Your task to perform on an android device: turn off javascript in the chrome app Image 0: 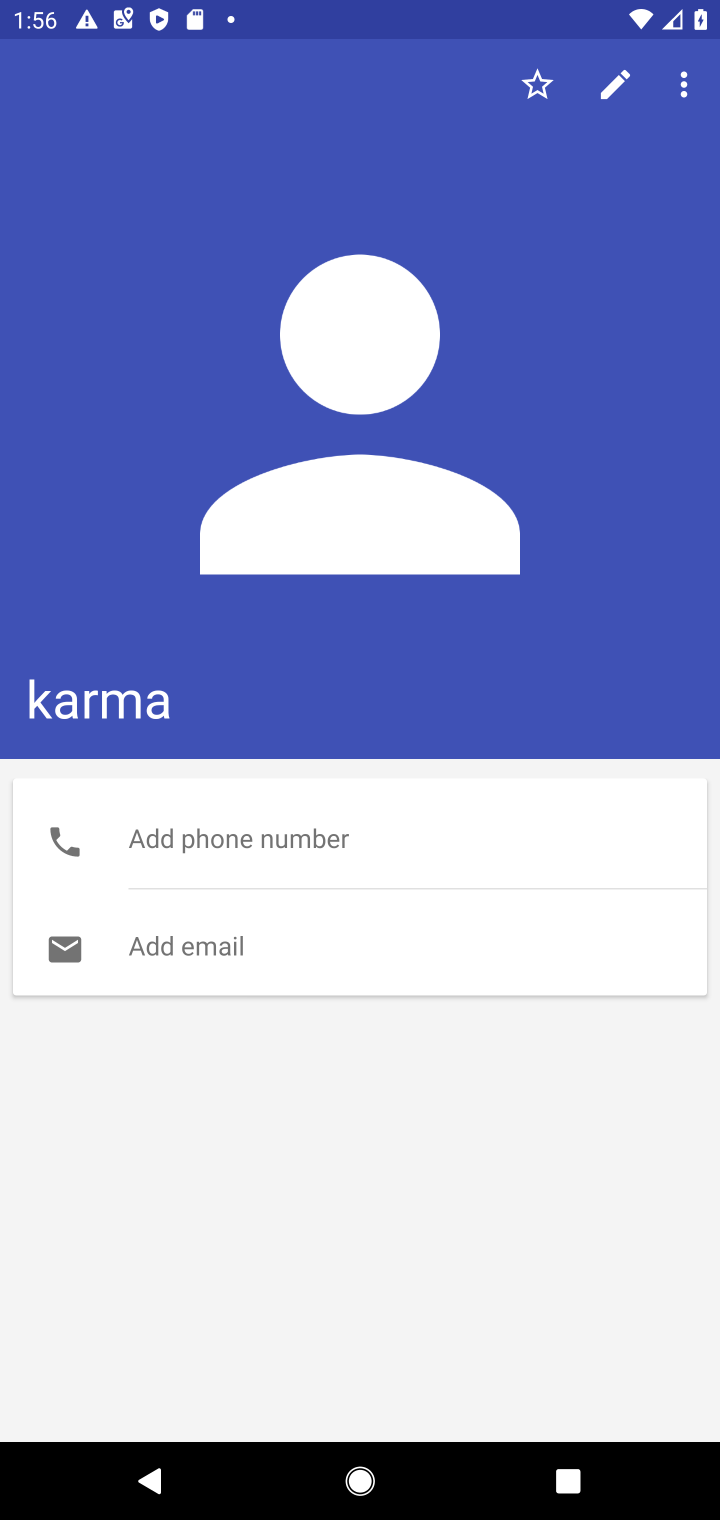
Step 0: press home button
Your task to perform on an android device: turn off javascript in the chrome app Image 1: 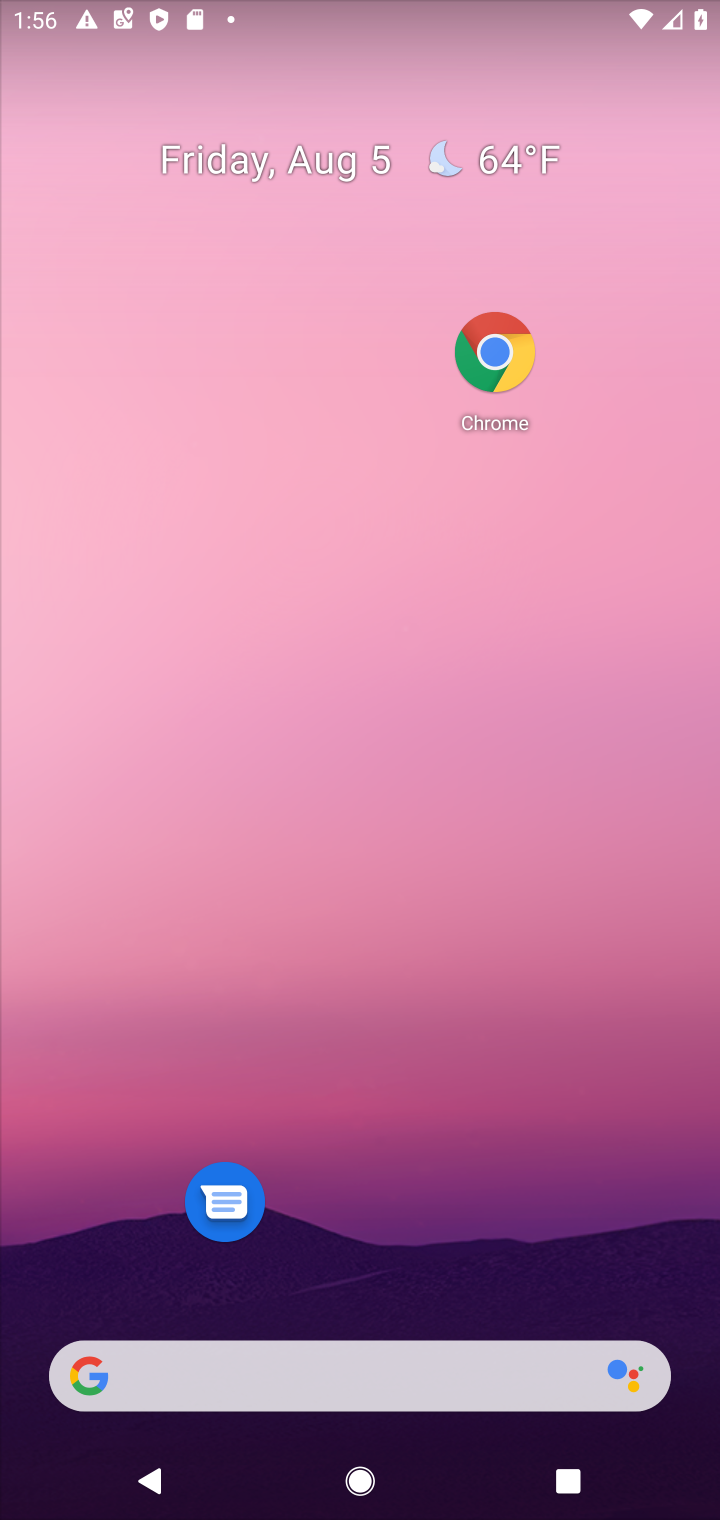
Step 1: drag from (521, 1089) to (419, 270)
Your task to perform on an android device: turn off javascript in the chrome app Image 2: 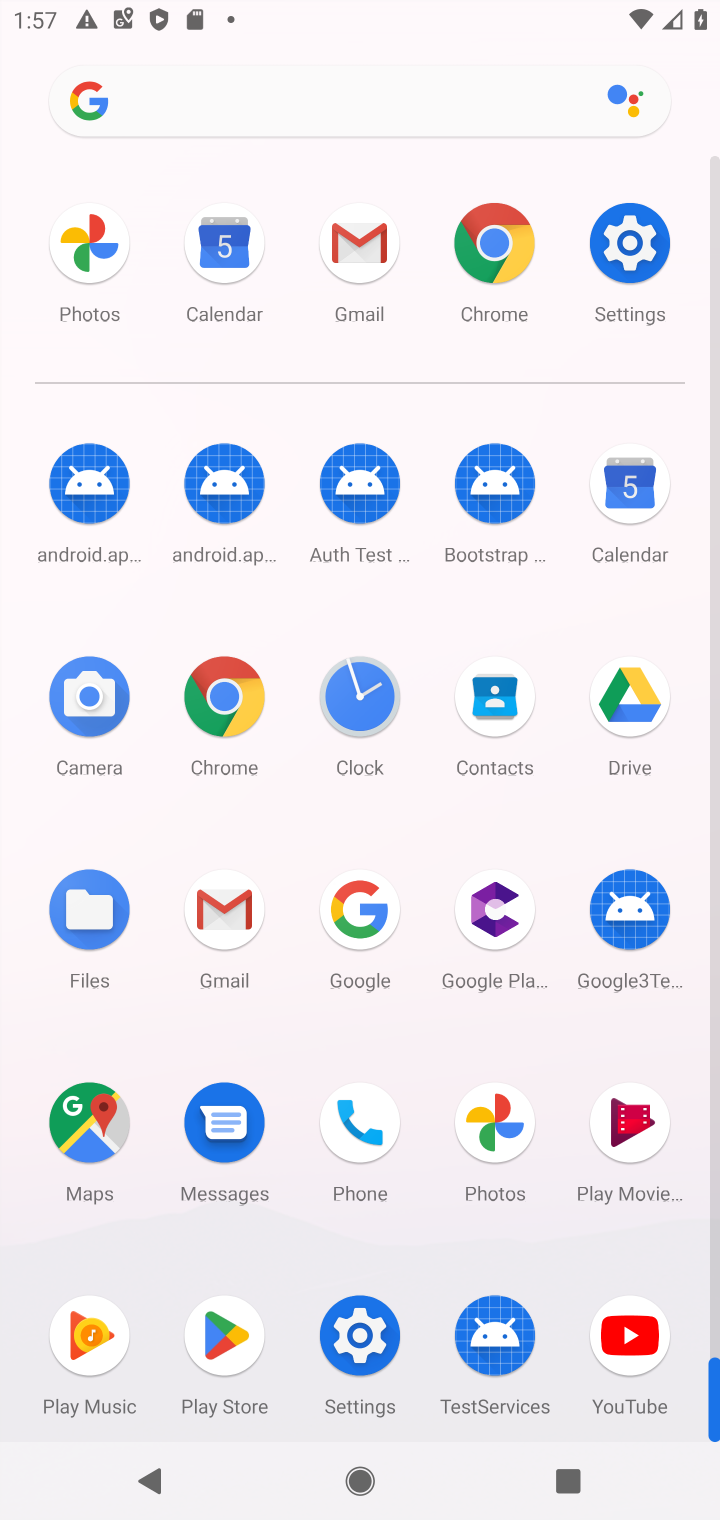
Step 2: click (227, 684)
Your task to perform on an android device: turn off javascript in the chrome app Image 3: 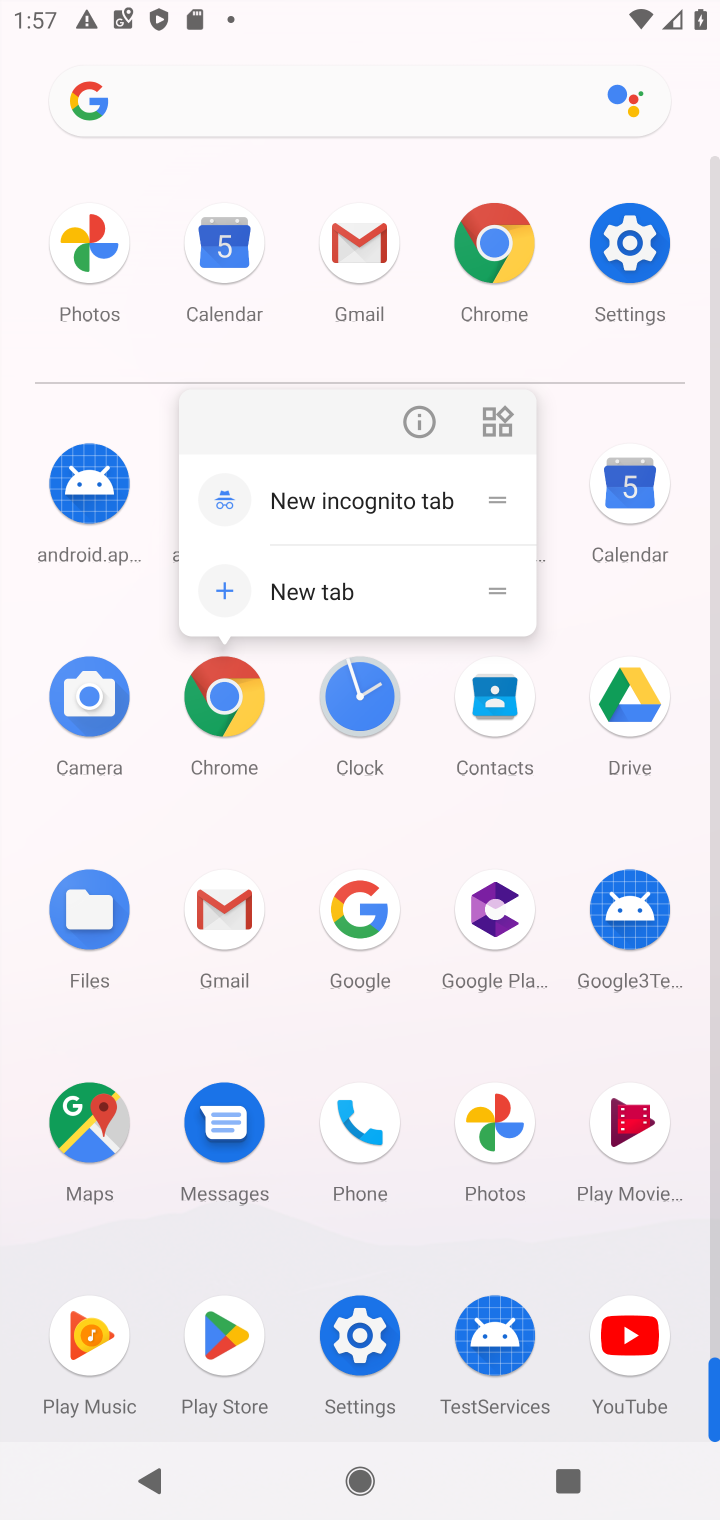
Step 3: click (216, 697)
Your task to perform on an android device: turn off javascript in the chrome app Image 4: 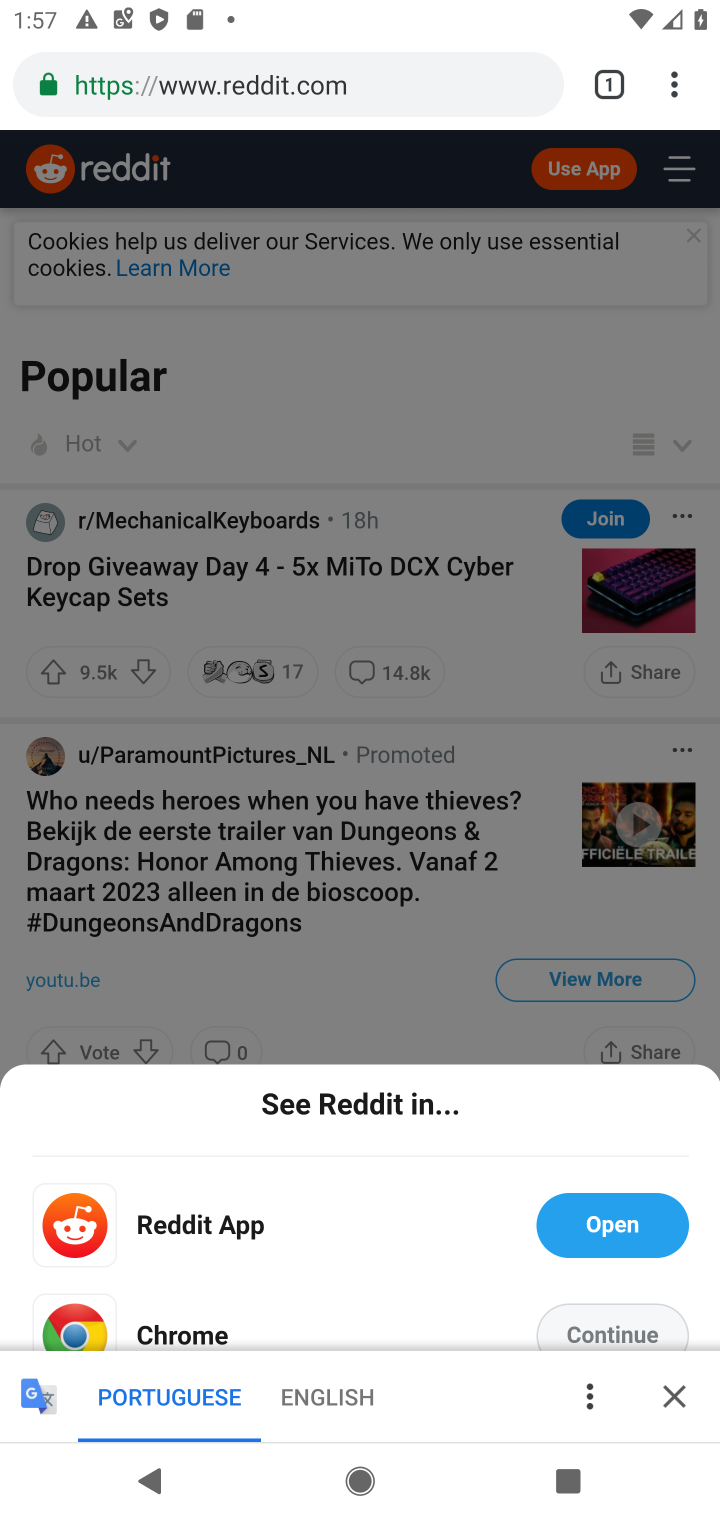
Step 4: drag from (665, 89) to (389, 1017)
Your task to perform on an android device: turn off javascript in the chrome app Image 5: 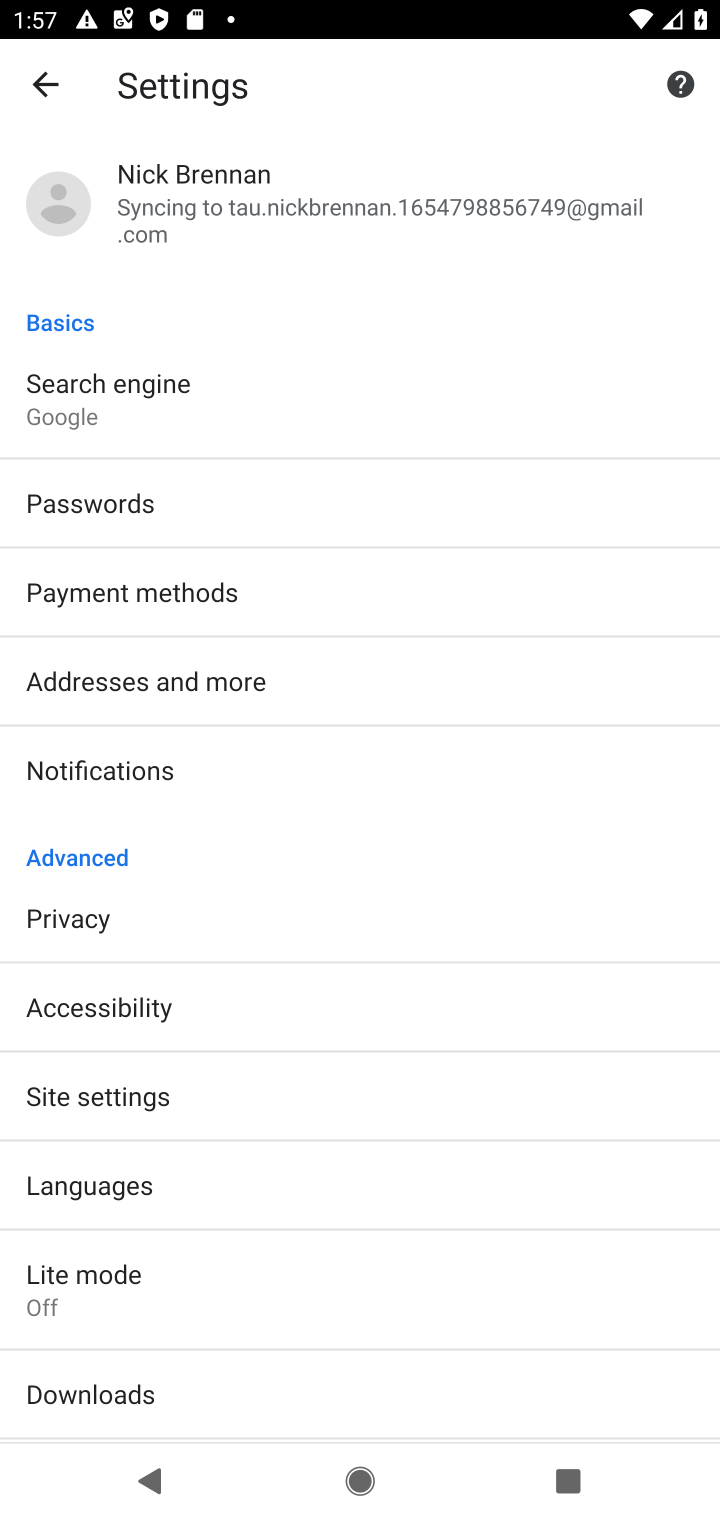
Step 5: click (166, 1115)
Your task to perform on an android device: turn off javascript in the chrome app Image 6: 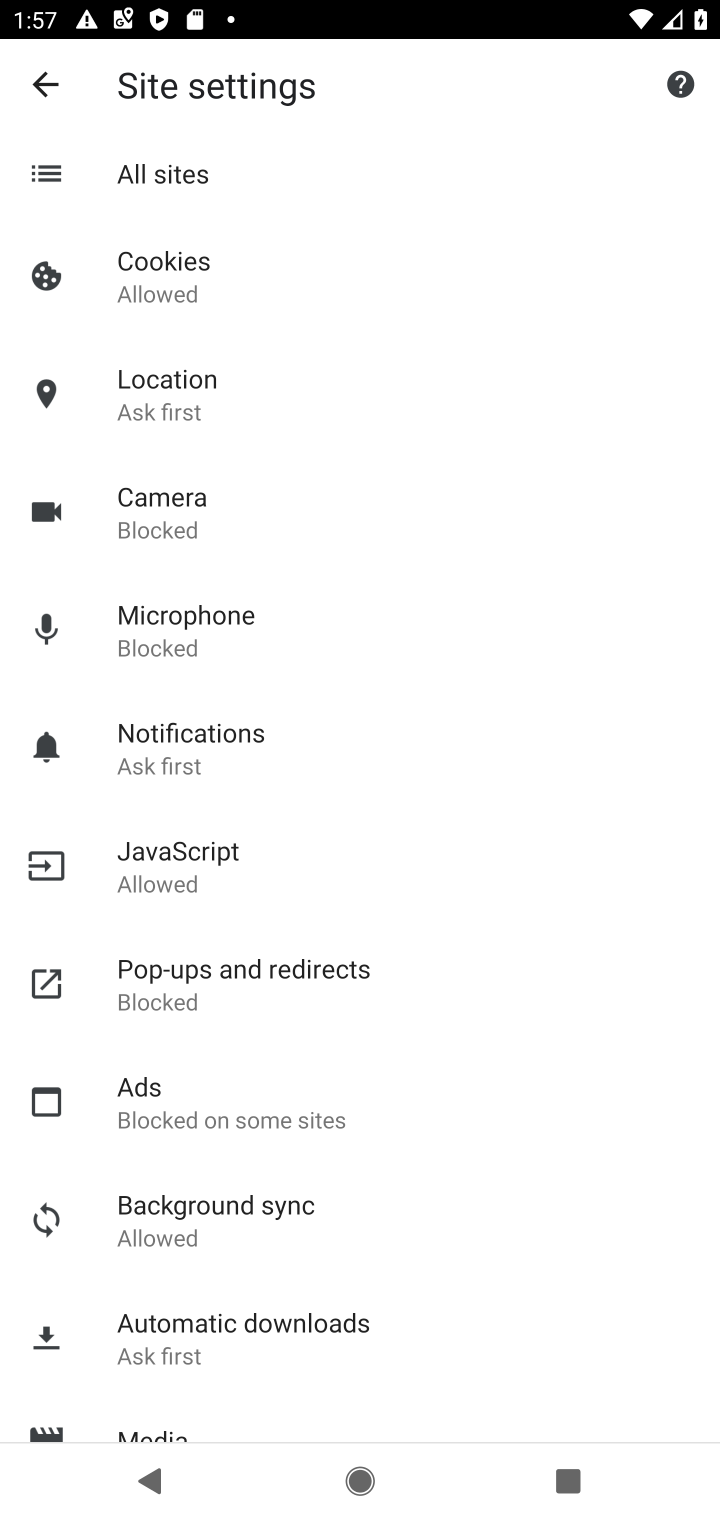
Step 6: click (228, 869)
Your task to perform on an android device: turn off javascript in the chrome app Image 7: 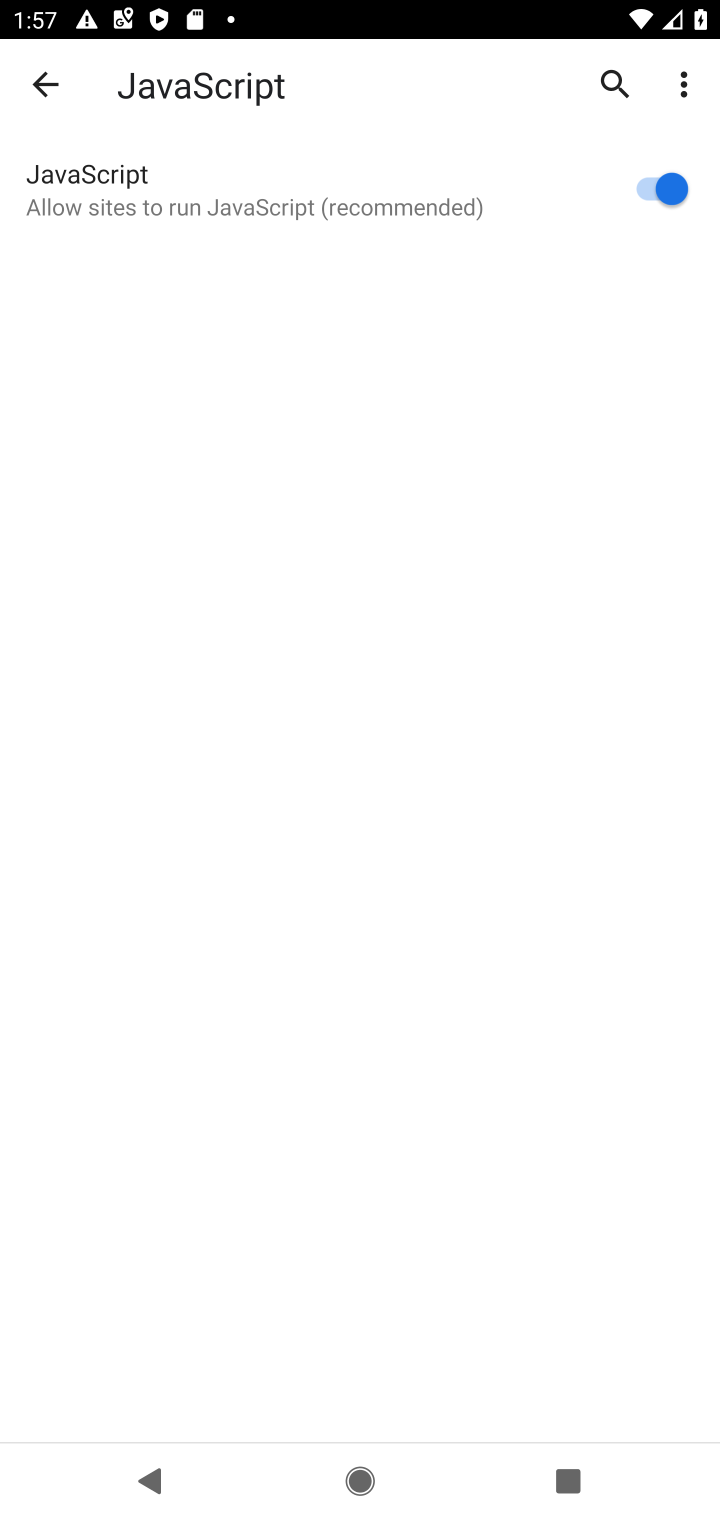
Step 7: click (660, 208)
Your task to perform on an android device: turn off javascript in the chrome app Image 8: 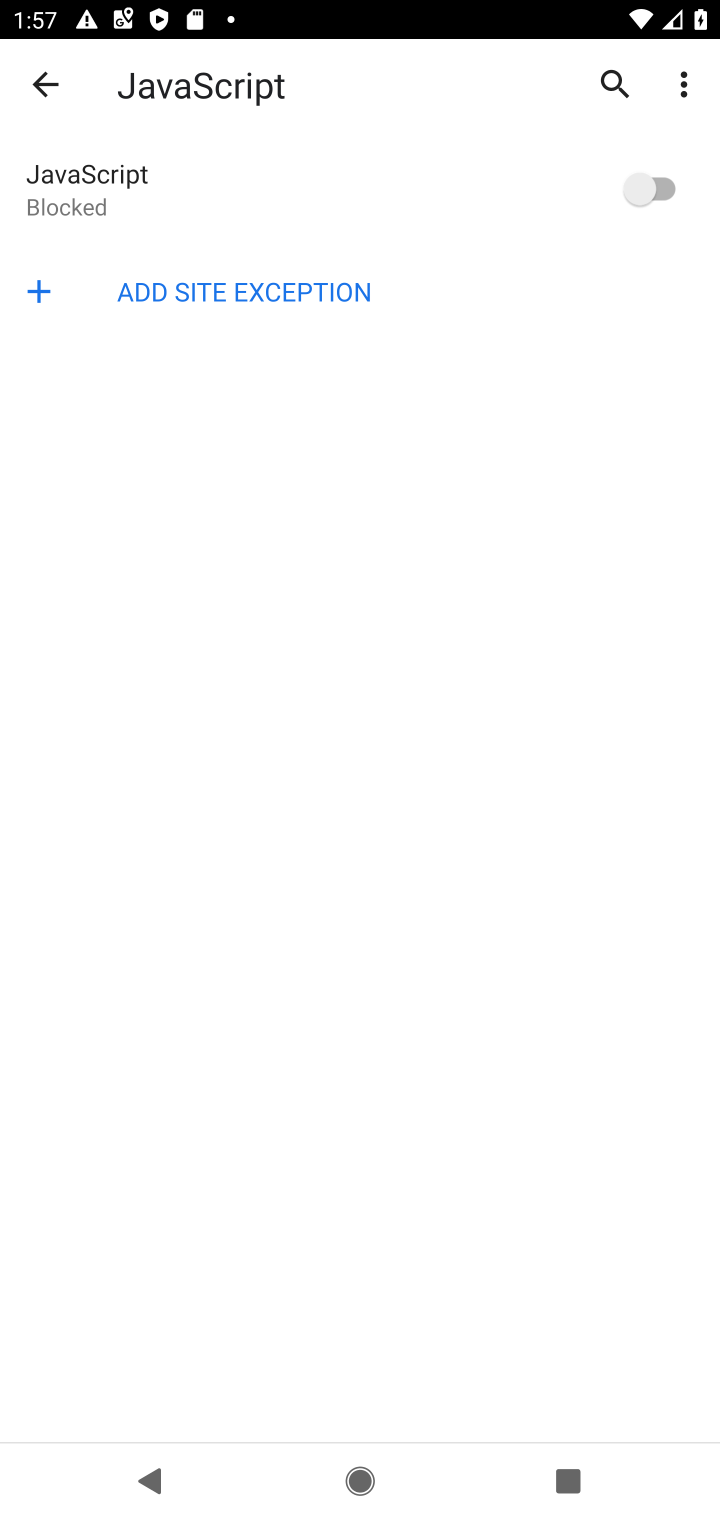
Step 8: task complete